Your task to perform on an android device: toggle notification dots Image 0: 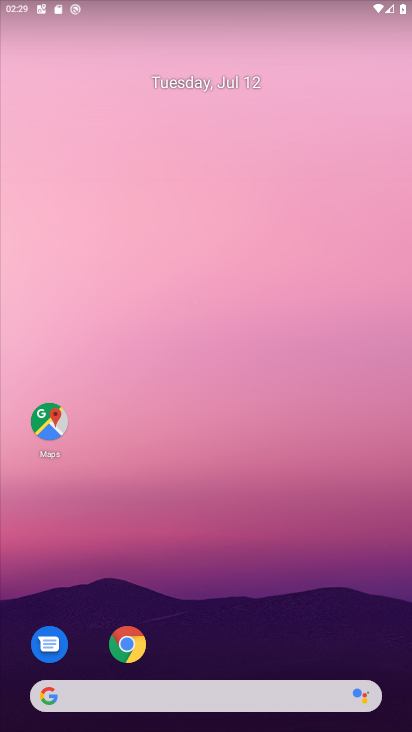
Step 0: drag from (197, 671) to (189, 169)
Your task to perform on an android device: toggle notification dots Image 1: 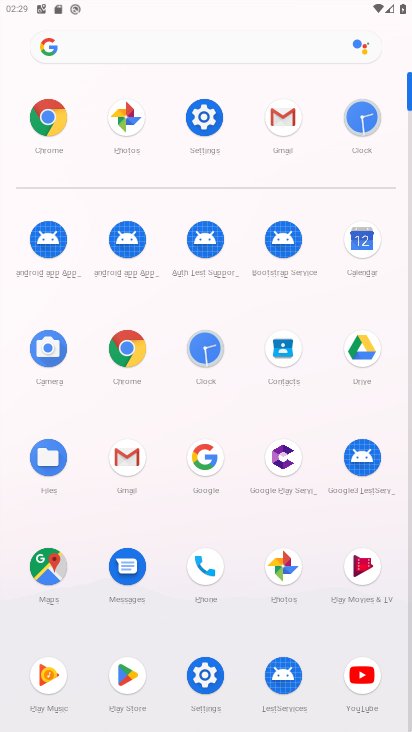
Step 1: click (199, 118)
Your task to perform on an android device: toggle notification dots Image 2: 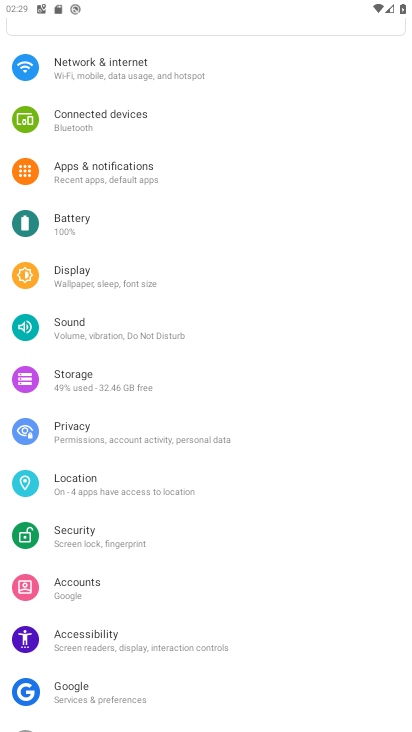
Step 2: click (105, 182)
Your task to perform on an android device: toggle notification dots Image 3: 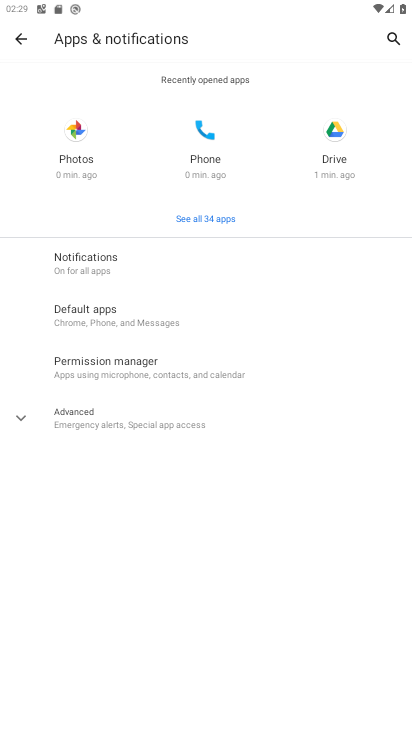
Step 3: click (73, 266)
Your task to perform on an android device: toggle notification dots Image 4: 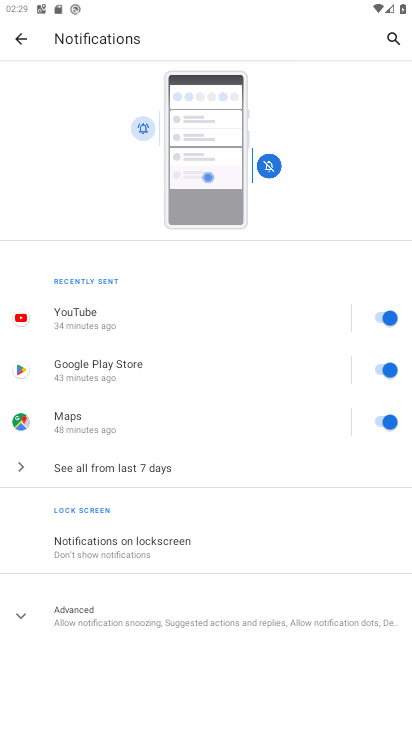
Step 4: click (59, 608)
Your task to perform on an android device: toggle notification dots Image 5: 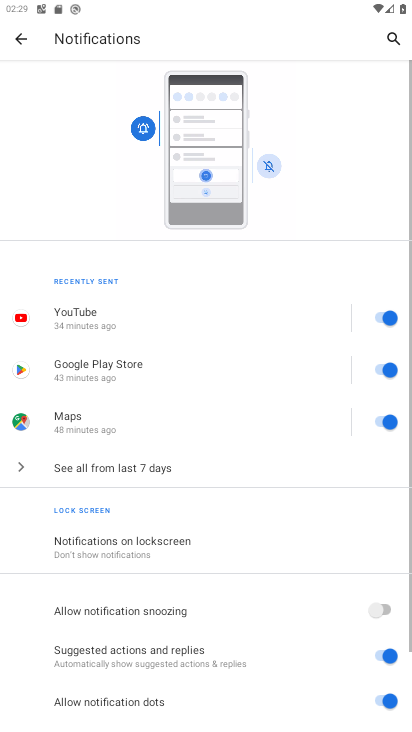
Step 5: drag from (168, 628) to (145, 417)
Your task to perform on an android device: toggle notification dots Image 6: 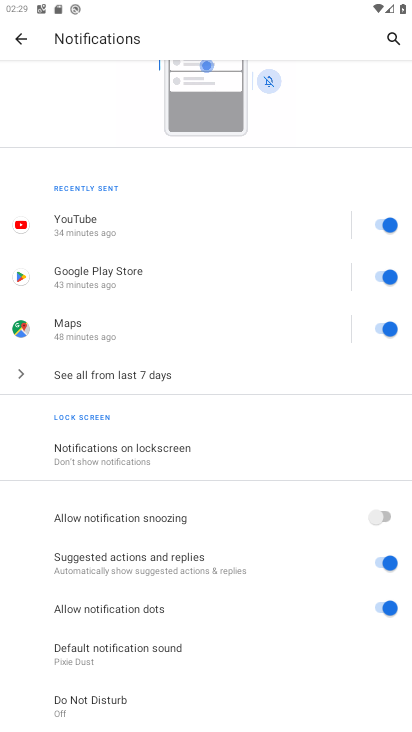
Step 6: click (389, 602)
Your task to perform on an android device: toggle notification dots Image 7: 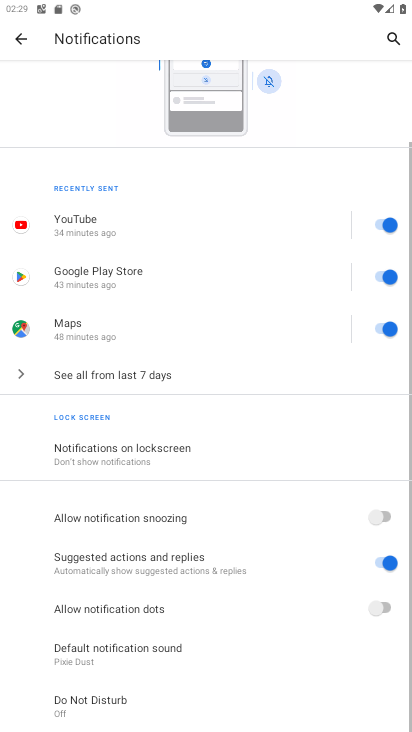
Step 7: task complete